Your task to perform on an android device: What's on my calendar today? Image 0: 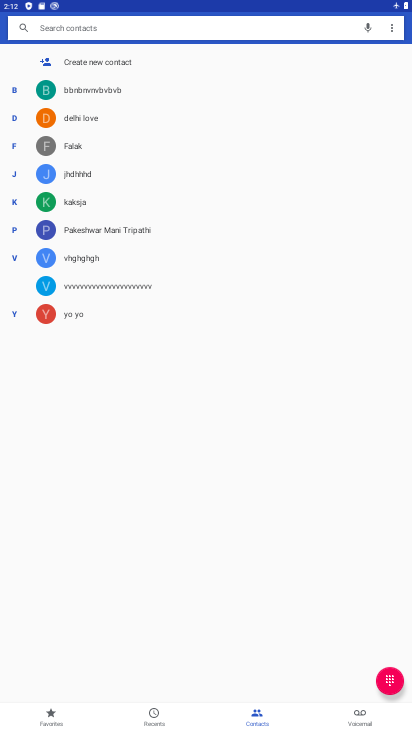
Step 0: press home button
Your task to perform on an android device: What's on my calendar today? Image 1: 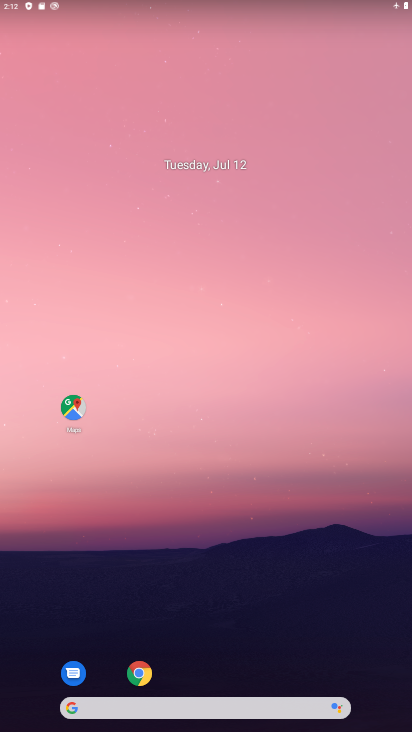
Step 1: drag from (149, 686) to (186, 297)
Your task to perform on an android device: What's on my calendar today? Image 2: 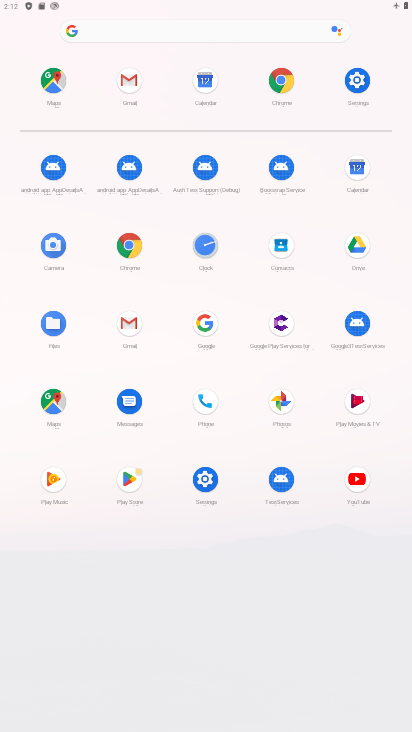
Step 2: click (357, 158)
Your task to perform on an android device: What's on my calendar today? Image 3: 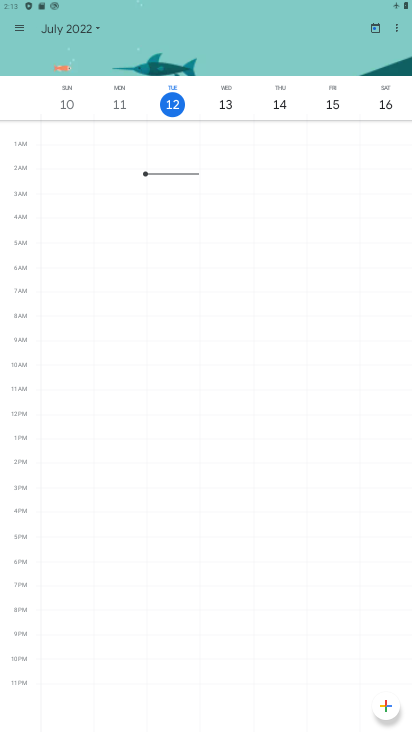
Step 3: task complete